Your task to perform on an android device: toggle javascript in the chrome app Image 0: 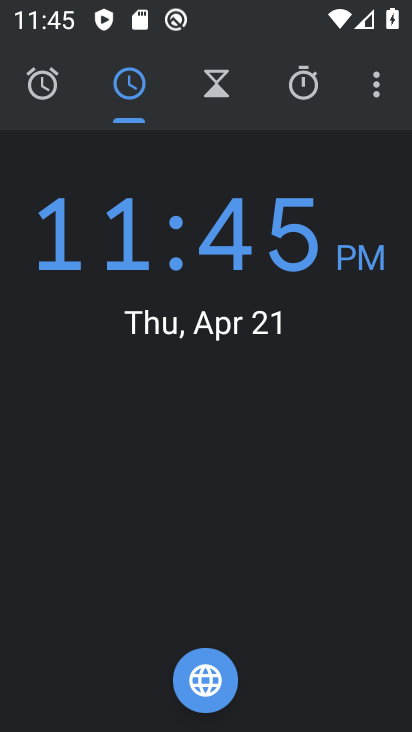
Step 0: press home button
Your task to perform on an android device: toggle javascript in the chrome app Image 1: 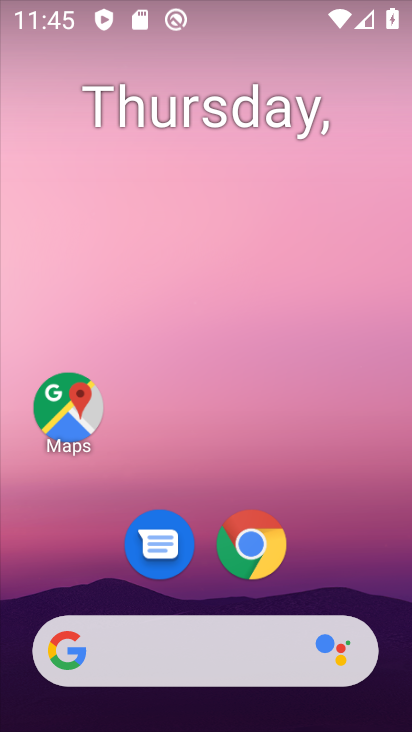
Step 1: drag from (214, 610) to (287, 29)
Your task to perform on an android device: toggle javascript in the chrome app Image 2: 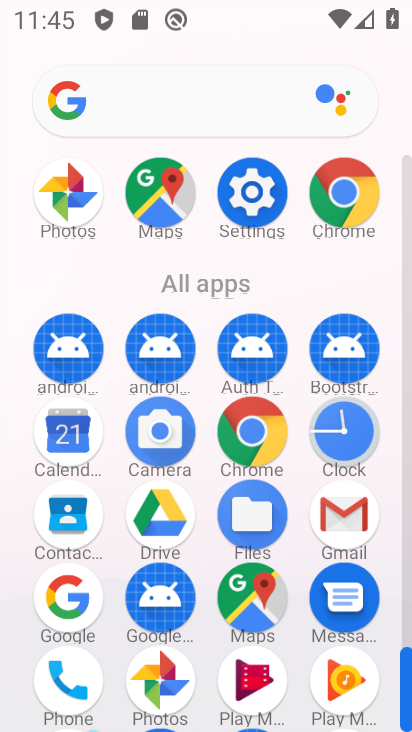
Step 2: click (255, 434)
Your task to perform on an android device: toggle javascript in the chrome app Image 3: 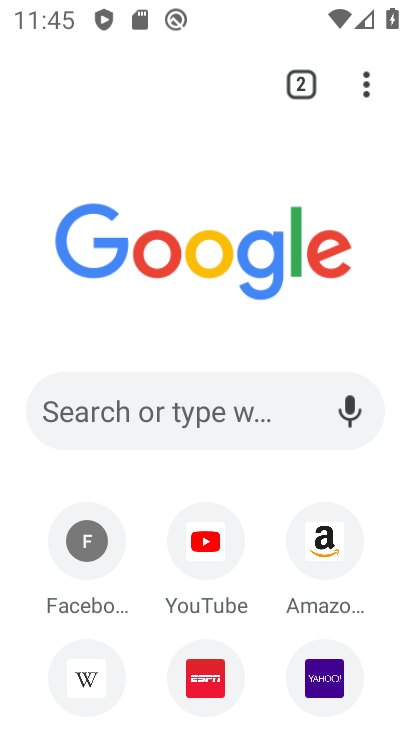
Step 3: drag from (362, 73) to (139, 610)
Your task to perform on an android device: toggle javascript in the chrome app Image 4: 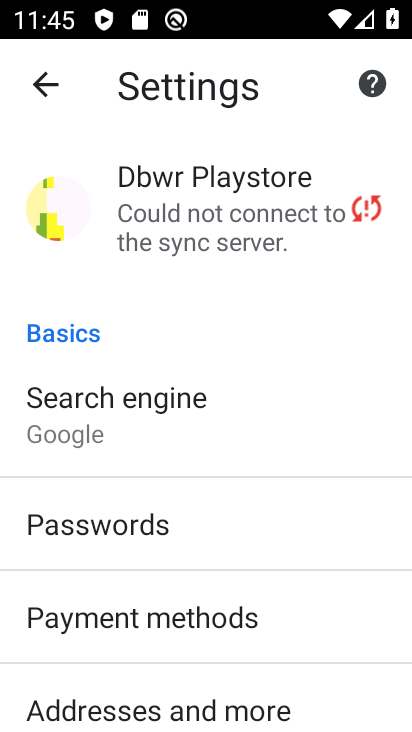
Step 4: drag from (247, 595) to (214, 107)
Your task to perform on an android device: toggle javascript in the chrome app Image 5: 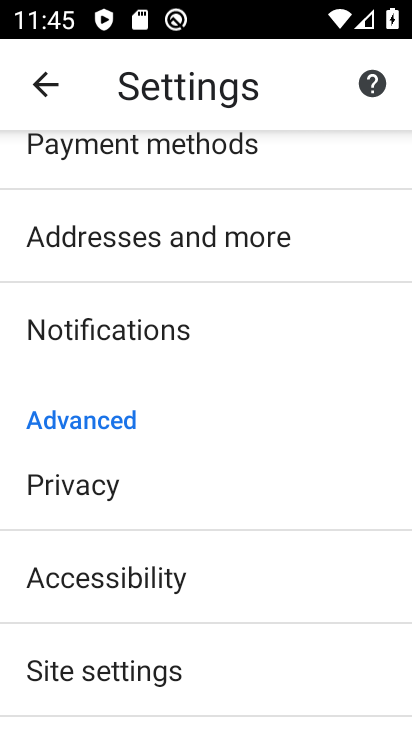
Step 5: click (117, 669)
Your task to perform on an android device: toggle javascript in the chrome app Image 6: 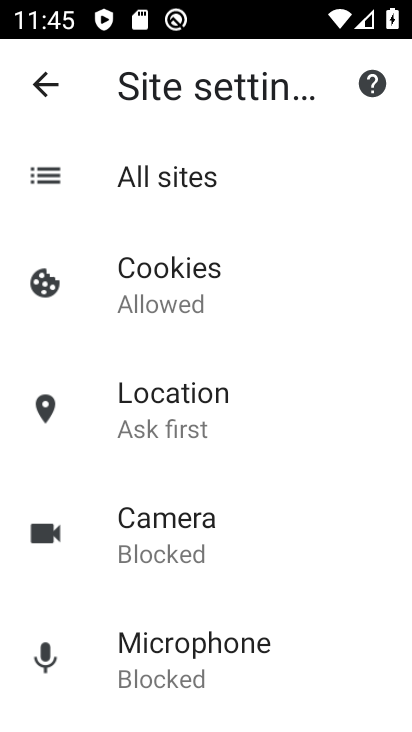
Step 6: drag from (251, 602) to (226, 228)
Your task to perform on an android device: toggle javascript in the chrome app Image 7: 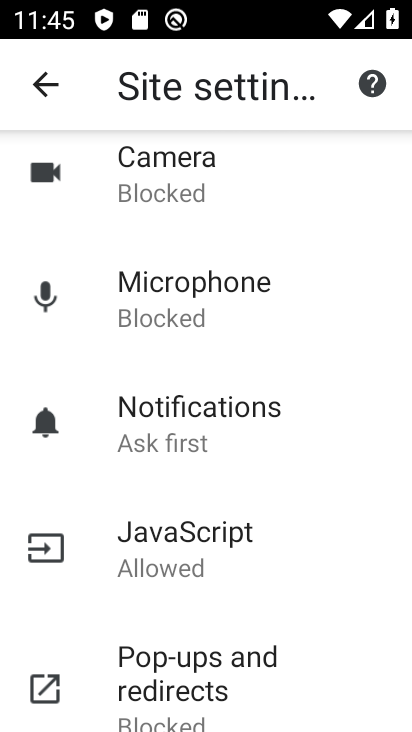
Step 7: click (195, 528)
Your task to perform on an android device: toggle javascript in the chrome app Image 8: 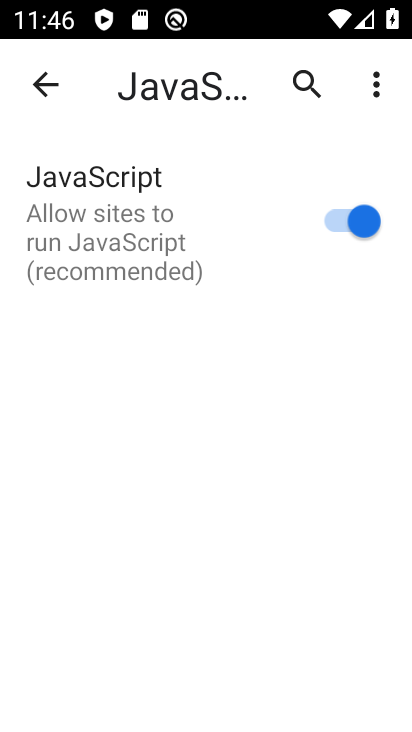
Step 8: task complete